Your task to perform on an android device: change alarm snooze length Image 0: 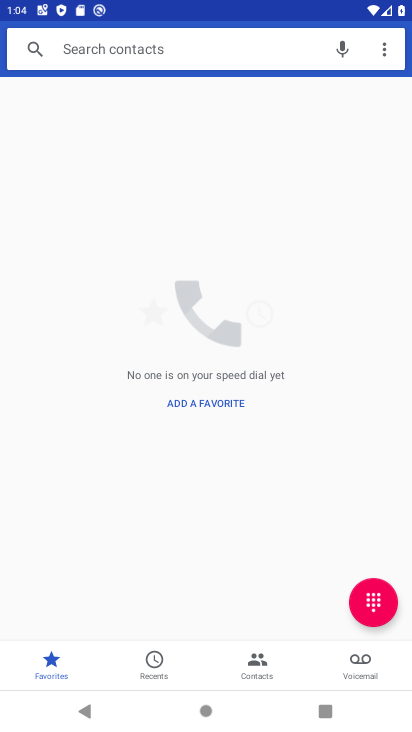
Step 0: click (385, 40)
Your task to perform on an android device: change alarm snooze length Image 1: 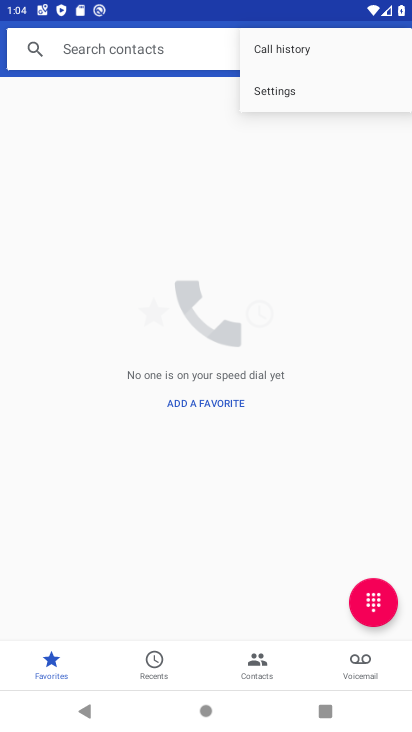
Step 1: press home button
Your task to perform on an android device: change alarm snooze length Image 2: 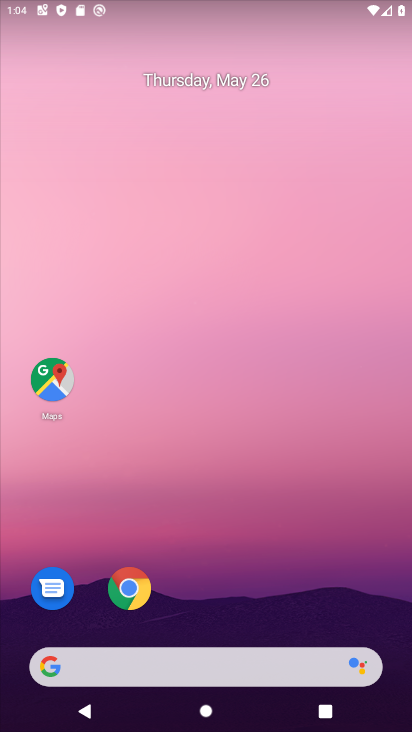
Step 2: drag from (393, 686) to (351, 315)
Your task to perform on an android device: change alarm snooze length Image 3: 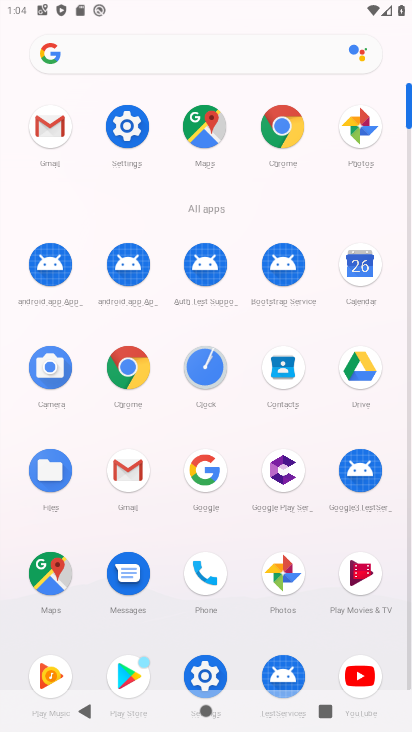
Step 3: click (197, 368)
Your task to perform on an android device: change alarm snooze length Image 4: 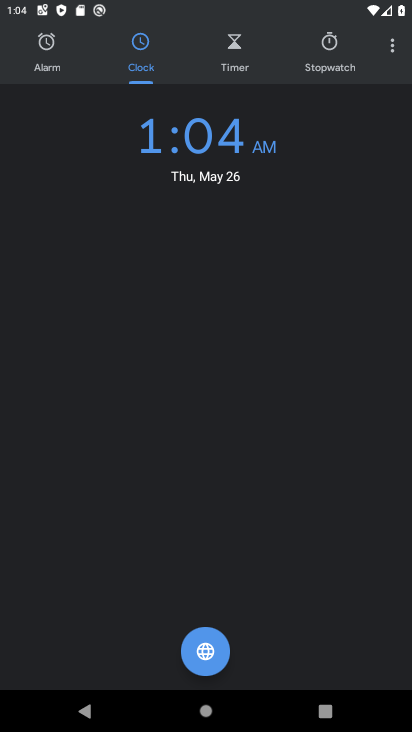
Step 4: click (390, 46)
Your task to perform on an android device: change alarm snooze length Image 5: 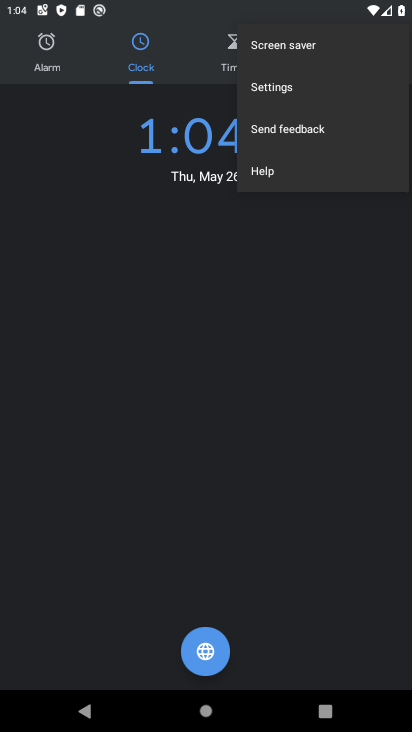
Step 5: click (281, 87)
Your task to perform on an android device: change alarm snooze length Image 6: 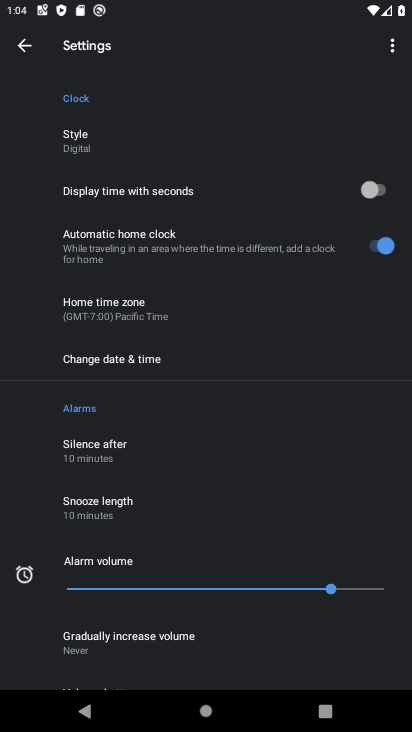
Step 6: click (101, 506)
Your task to perform on an android device: change alarm snooze length Image 7: 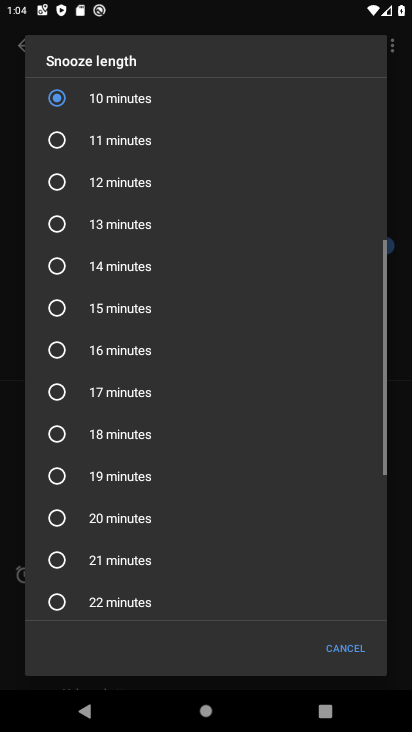
Step 7: click (53, 348)
Your task to perform on an android device: change alarm snooze length Image 8: 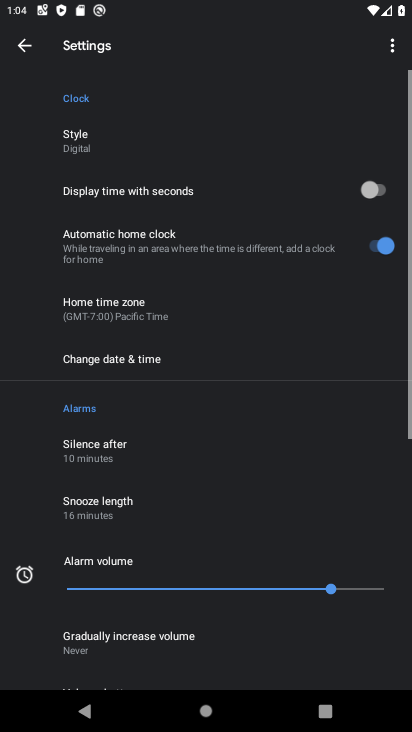
Step 8: task complete